Your task to perform on an android device: snooze an email in the gmail app Image 0: 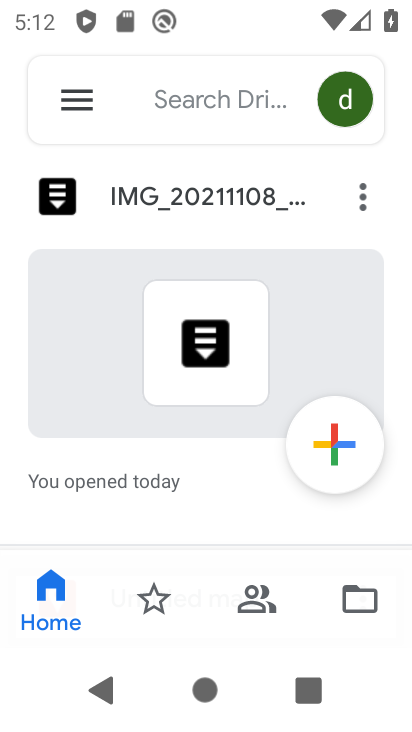
Step 0: press home button
Your task to perform on an android device: snooze an email in the gmail app Image 1: 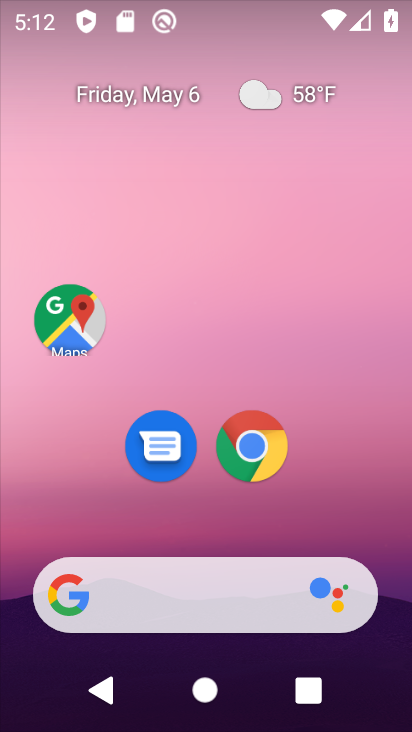
Step 1: drag from (331, 499) to (248, 137)
Your task to perform on an android device: snooze an email in the gmail app Image 2: 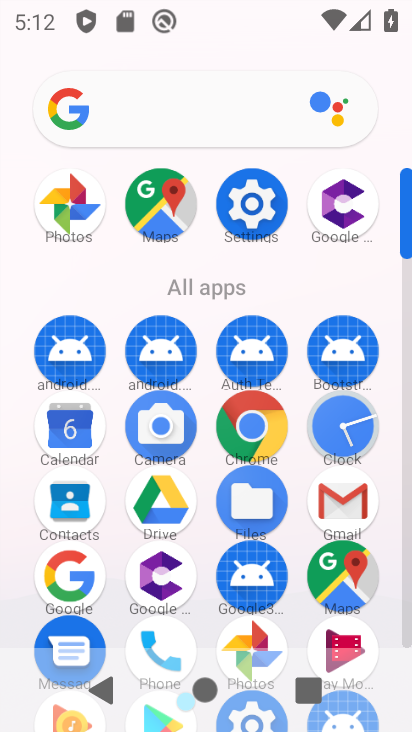
Step 2: click (324, 503)
Your task to perform on an android device: snooze an email in the gmail app Image 3: 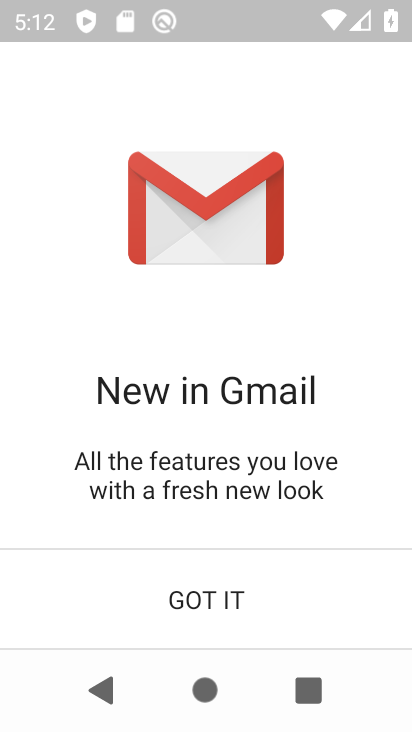
Step 3: click (220, 599)
Your task to perform on an android device: snooze an email in the gmail app Image 4: 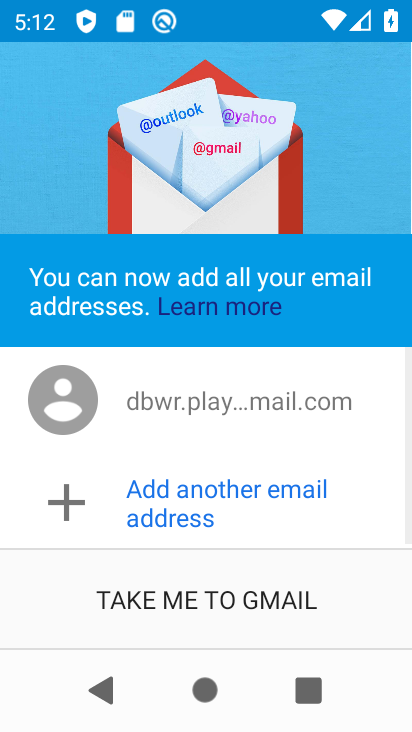
Step 4: click (220, 599)
Your task to perform on an android device: snooze an email in the gmail app Image 5: 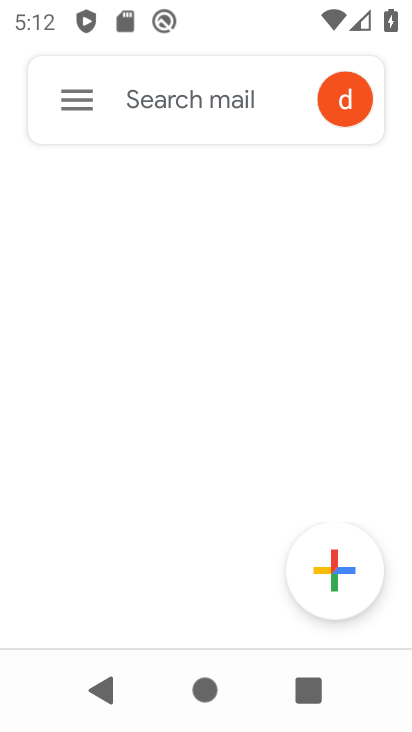
Step 5: click (76, 105)
Your task to perform on an android device: snooze an email in the gmail app Image 6: 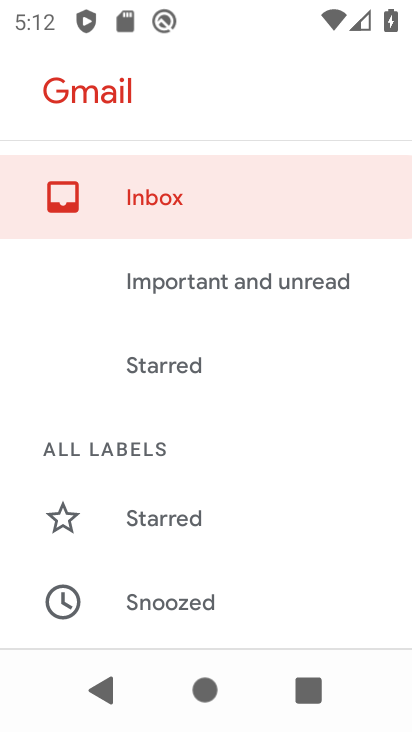
Step 6: drag from (274, 483) to (201, 235)
Your task to perform on an android device: snooze an email in the gmail app Image 7: 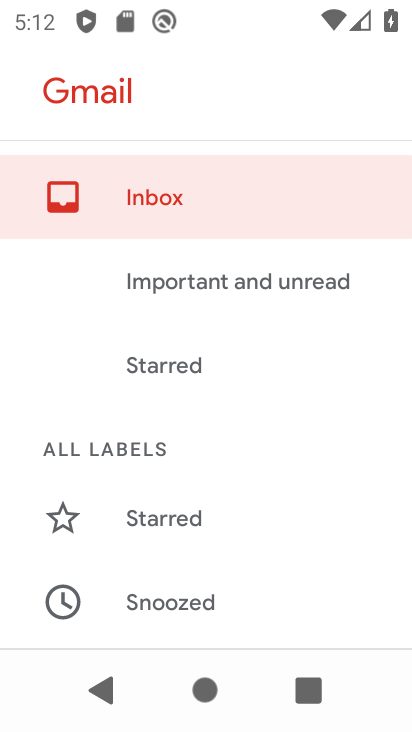
Step 7: drag from (215, 539) to (161, 267)
Your task to perform on an android device: snooze an email in the gmail app Image 8: 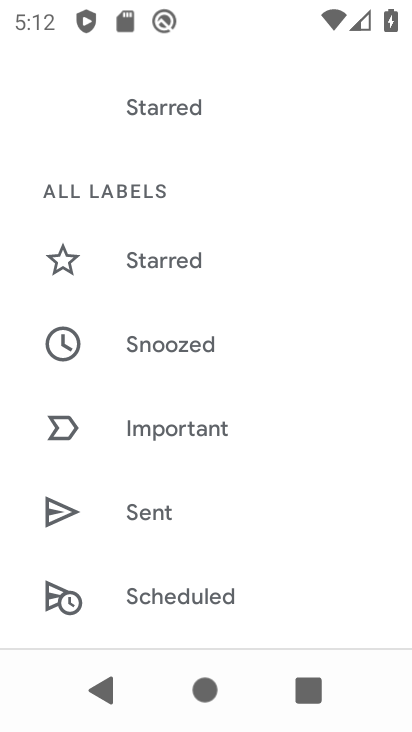
Step 8: click (181, 465)
Your task to perform on an android device: snooze an email in the gmail app Image 9: 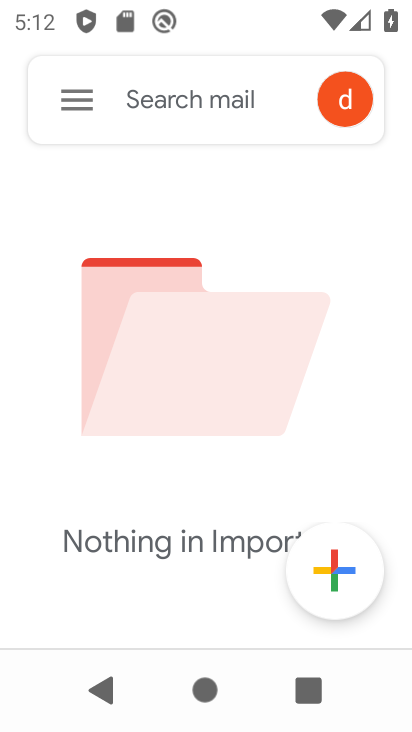
Step 9: click (71, 93)
Your task to perform on an android device: snooze an email in the gmail app Image 10: 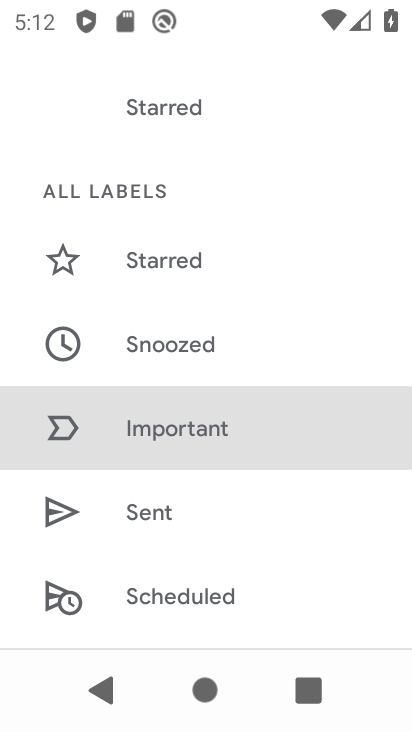
Step 10: drag from (193, 534) to (158, 303)
Your task to perform on an android device: snooze an email in the gmail app Image 11: 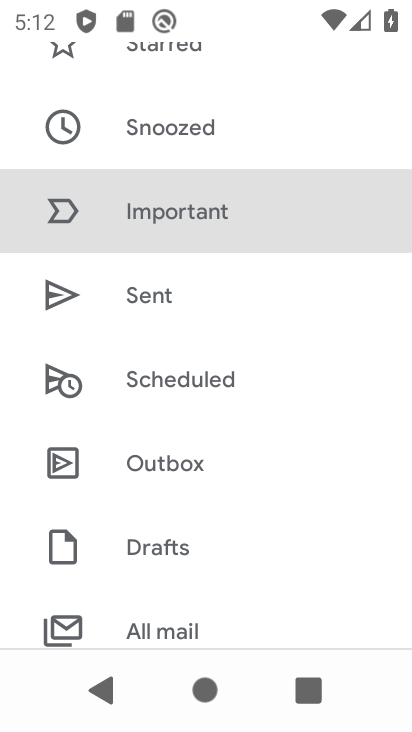
Step 11: click (161, 625)
Your task to perform on an android device: snooze an email in the gmail app Image 12: 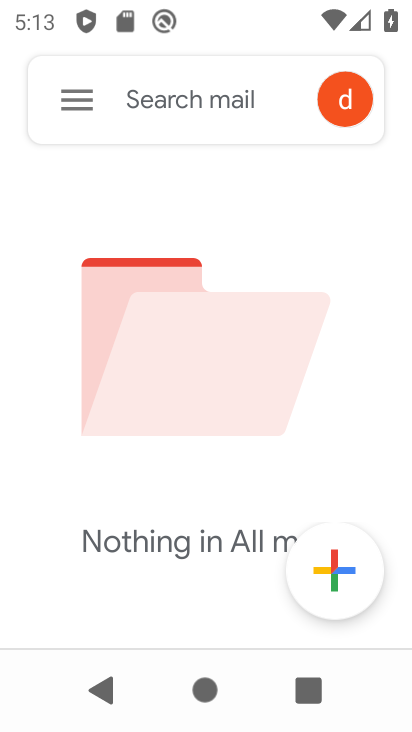
Step 12: task complete